Your task to perform on an android device: Open Google Chrome and open the bookmarks view Image 0: 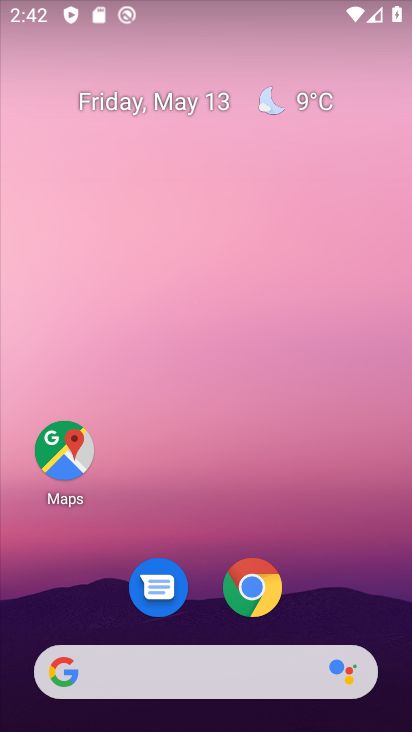
Step 0: click (256, 592)
Your task to perform on an android device: Open Google Chrome and open the bookmarks view Image 1: 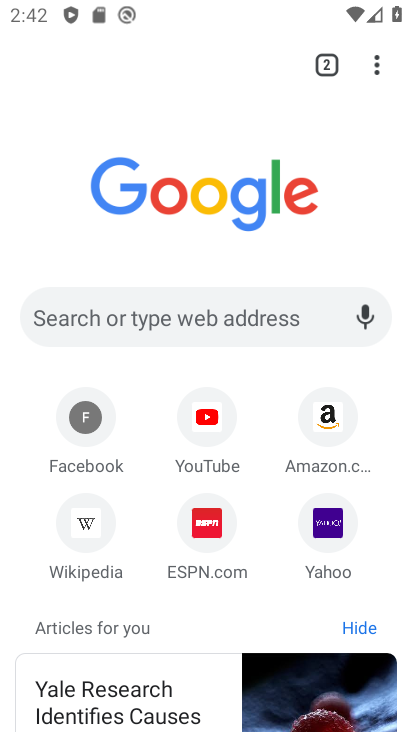
Step 1: click (377, 75)
Your task to perform on an android device: Open Google Chrome and open the bookmarks view Image 2: 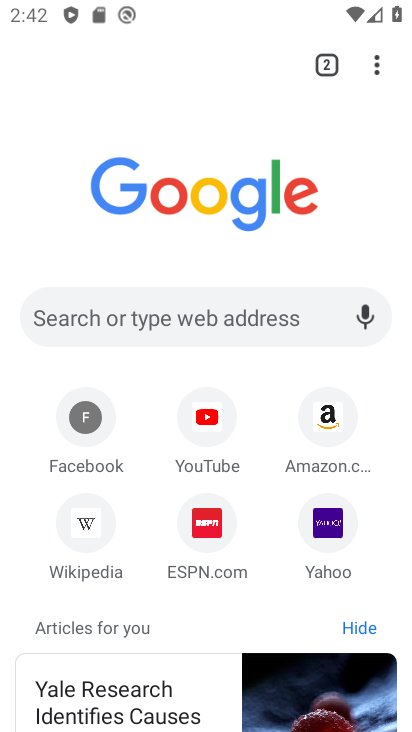
Step 2: task complete